Your task to perform on an android device: Clear the shopping cart on walmart. Add "lg ultragear" to the cart on walmart Image 0: 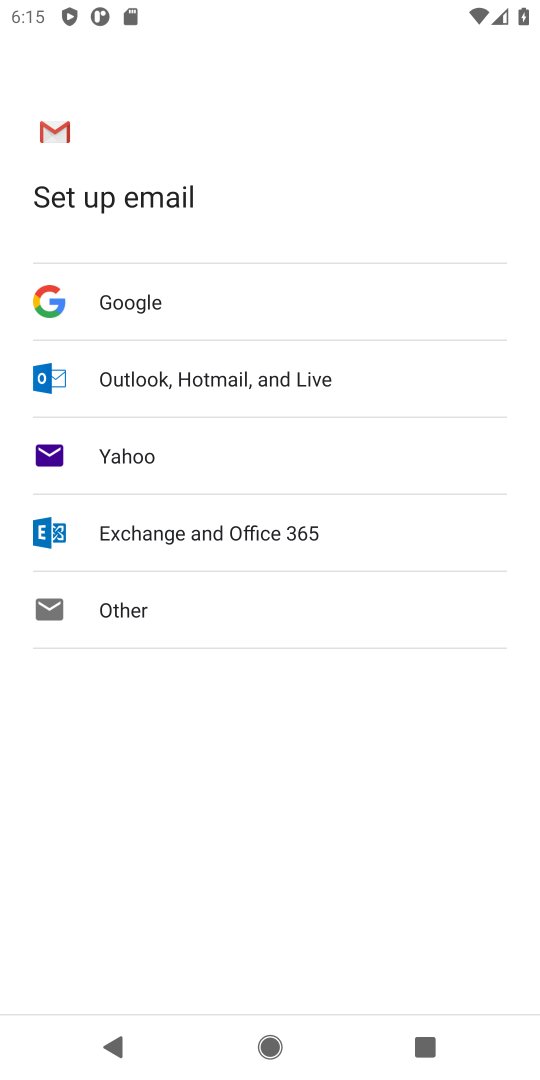
Step 0: press home button
Your task to perform on an android device: Clear the shopping cart on walmart. Add "lg ultragear" to the cart on walmart Image 1: 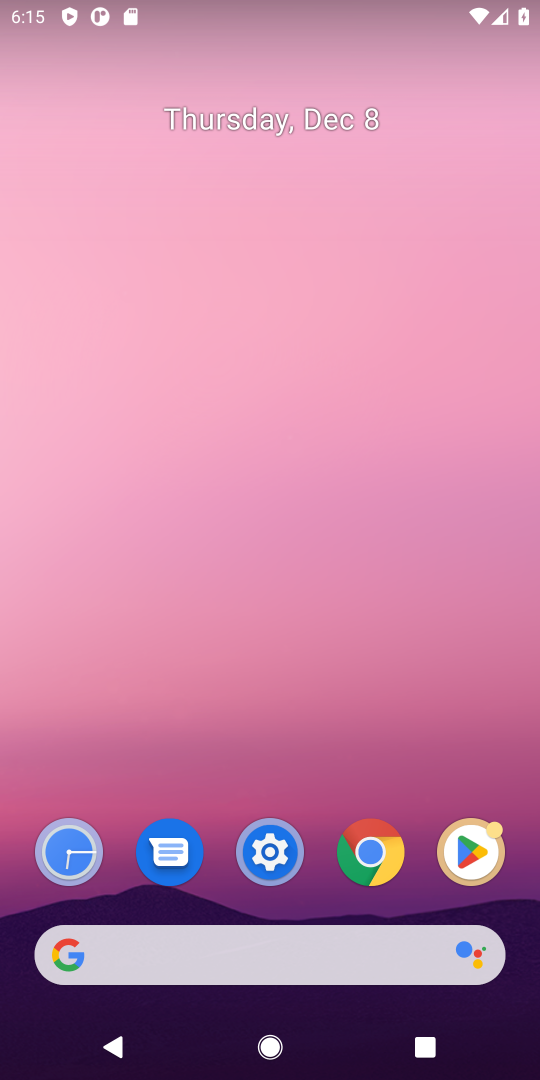
Step 1: click (241, 955)
Your task to perform on an android device: Clear the shopping cart on walmart. Add "lg ultragear" to the cart on walmart Image 2: 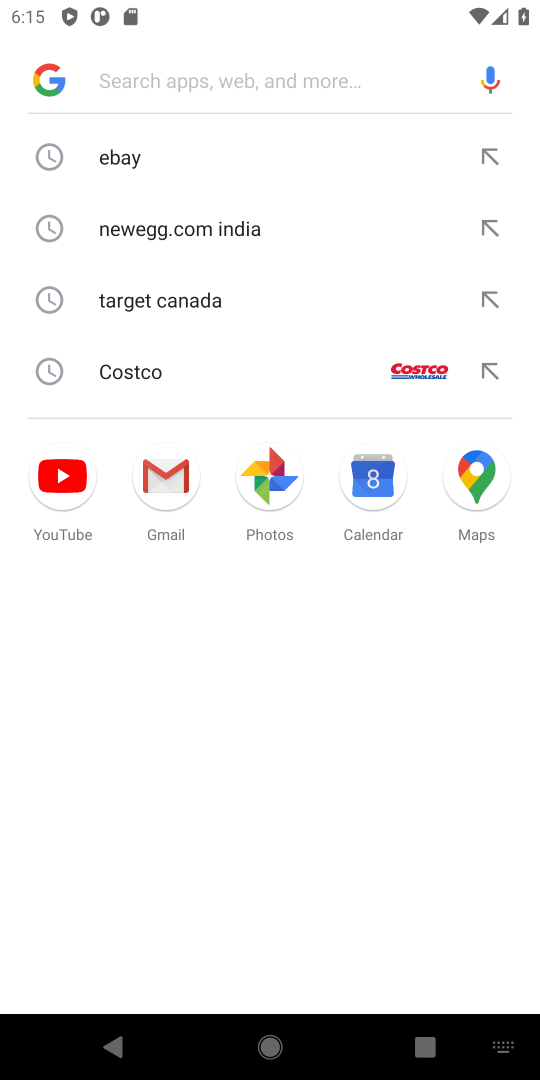
Step 2: type "walmart"
Your task to perform on an android device: Clear the shopping cart on walmart. Add "lg ultragear" to the cart on walmart Image 3: 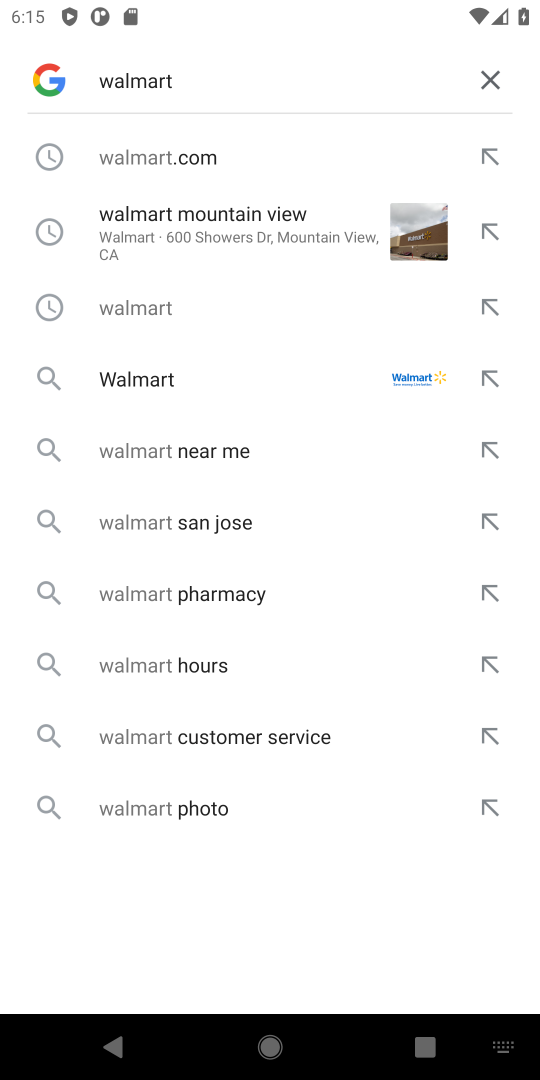
Step 3: click (176, 150)
Your task to perform on an android device: Clear the shopping cart on walmart. Add "lg ultragear" to the cart on walmart Image 4: 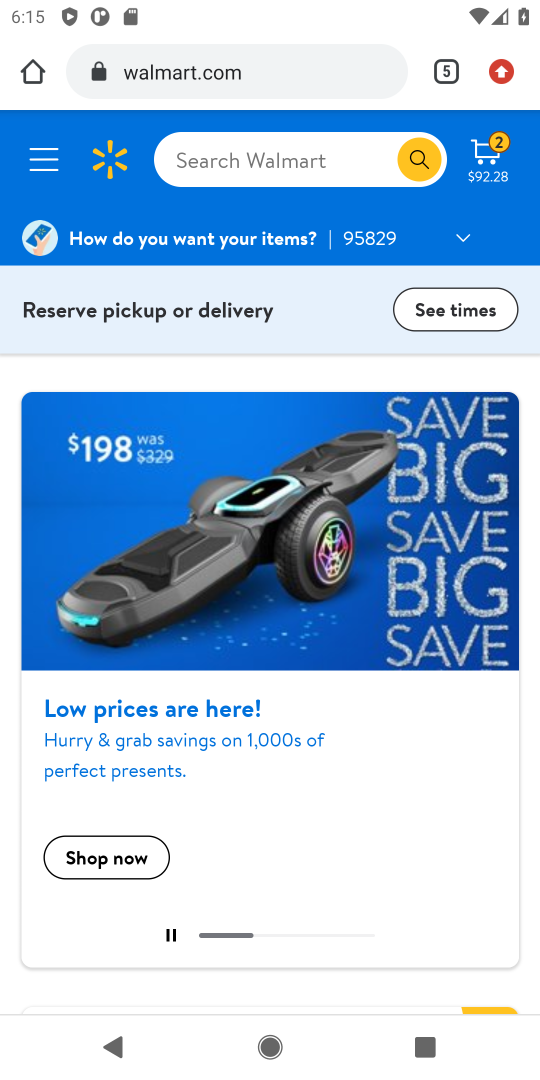
Step 4: click (225, 172)
Your task to perform on an android device: Clear the shopping cart on walmart. Add "lg ultragear" to the cart on walmart Image 5: 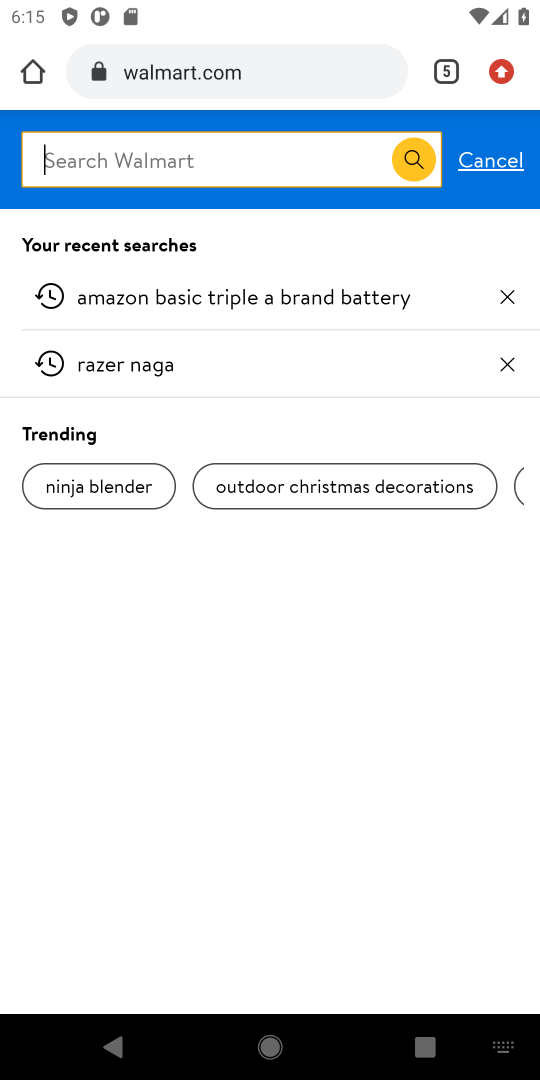
Step 5: type "lg ultragear"
Your task to perform on an android device: Clear the shopping cart on walmart. Add "lg ultragear" to the cart on walmart Image 6: 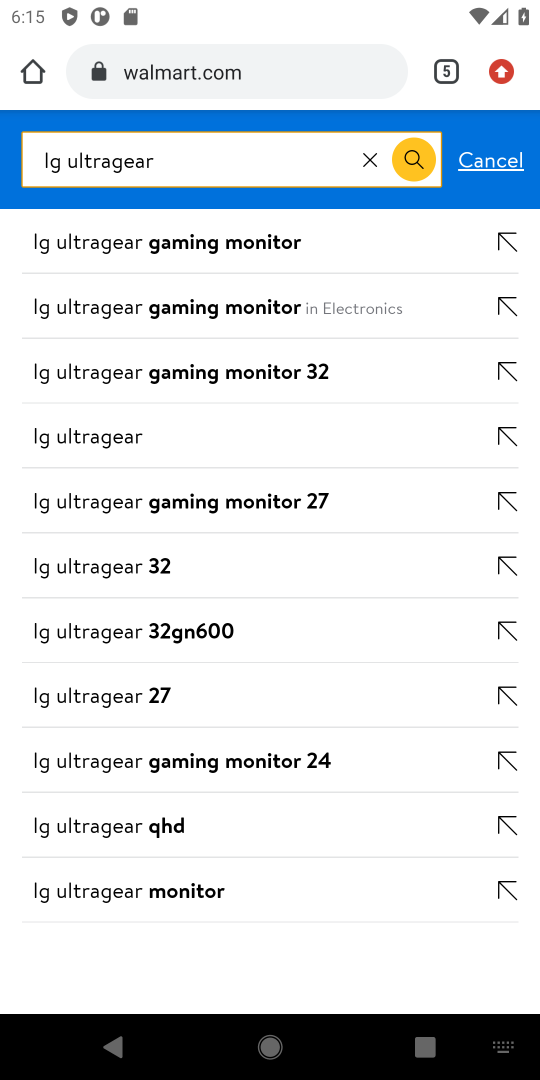
Step 6: click (408, 165)
Your task to perform on an android device: Clear the shopping cart on walmart. Add "lg ultragear" to the cart on walmart Image 7: 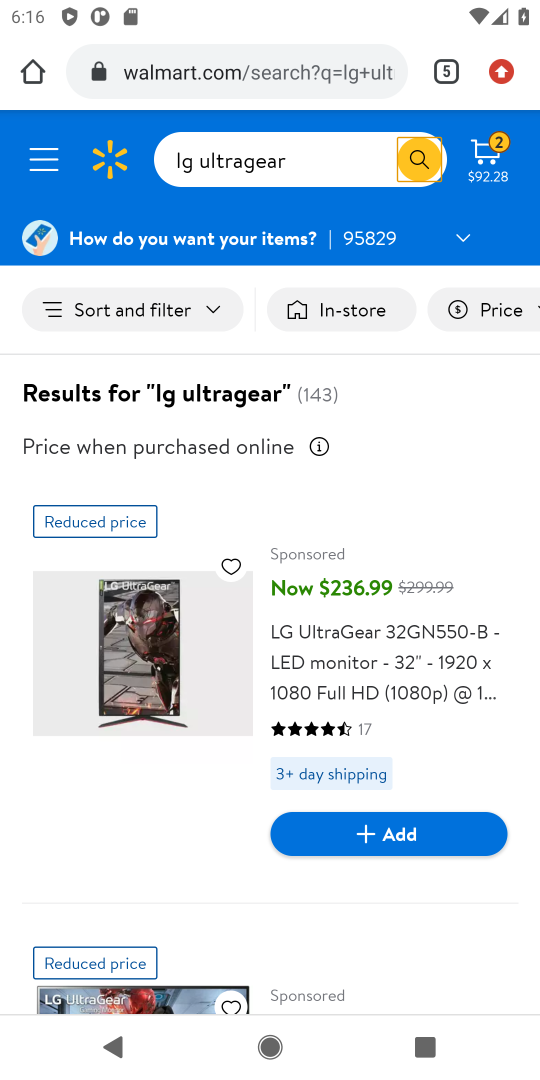
Step 7: click (343, 840)
Your task to perform on an android device: Clear the shopping cart on walmart. Add "lg ultragear" to the cart on walmart Image 8: 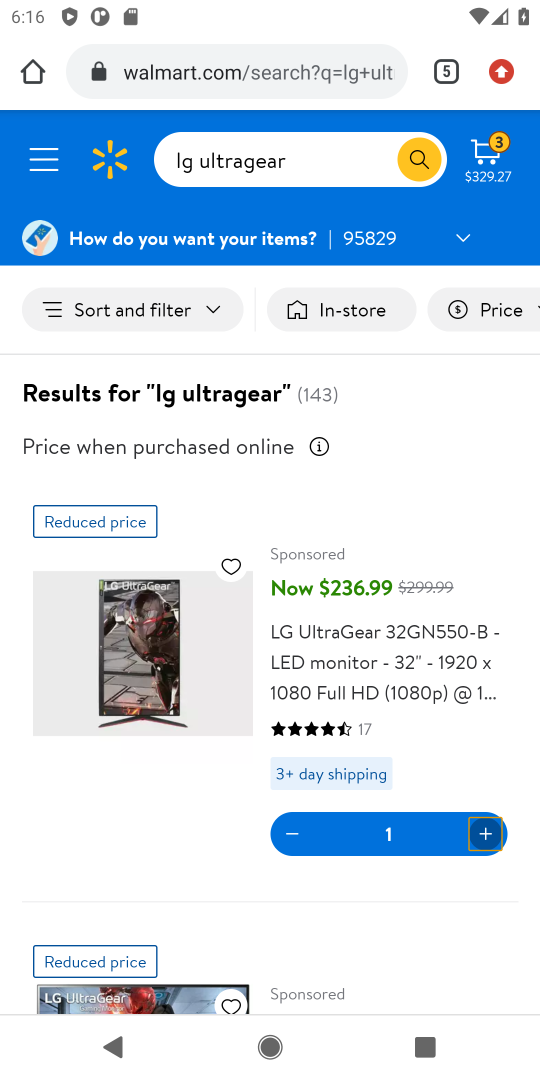
Step 8: task complete